Your task to perform on an android device: turn on location history Image 0: 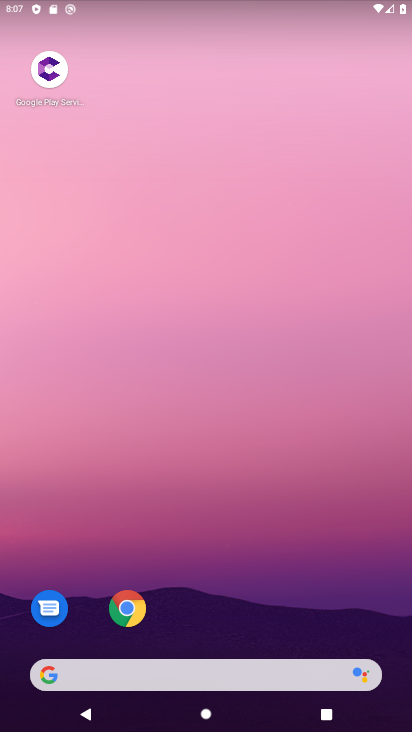
Step 0: drag from (221, 660) to (214, 51)
Your task to perform on an android device: turn on location history Image 1: 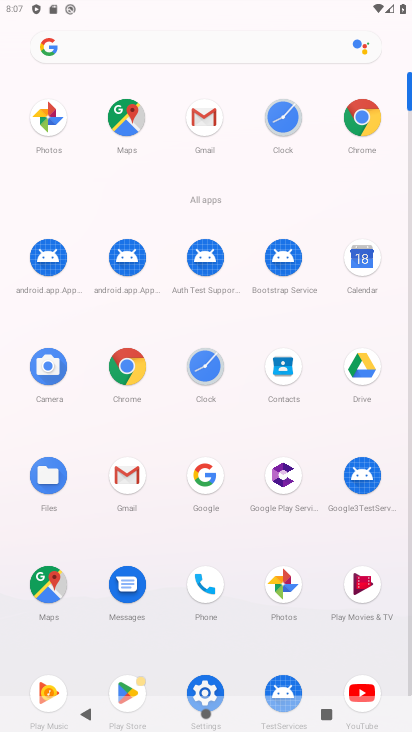
Step 1: click (211, 676)
Your task to perform on an android device: turn on location history Image 2: 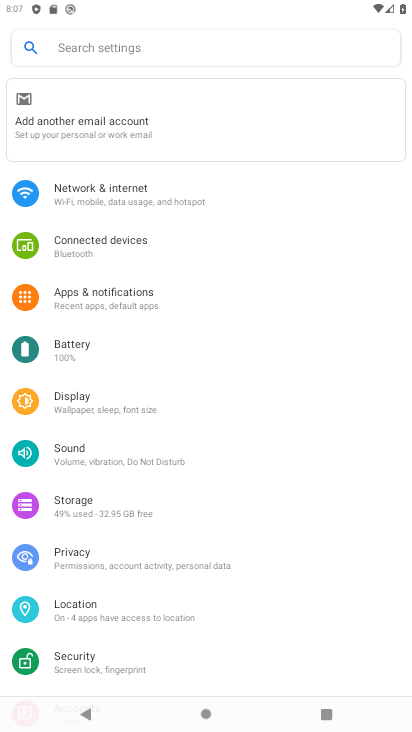
Step 2: click (65, 609)
Your task to perform on an android device: turn on location history Image 3: 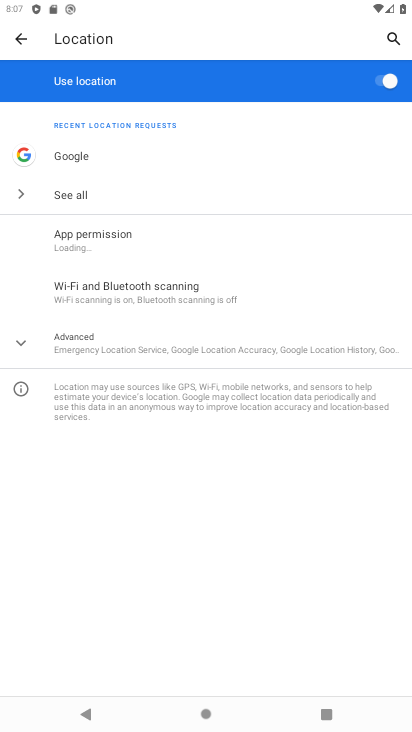
Step 3: click (92, 346)
Your task to perform on an android device: turn on location history Image 4: 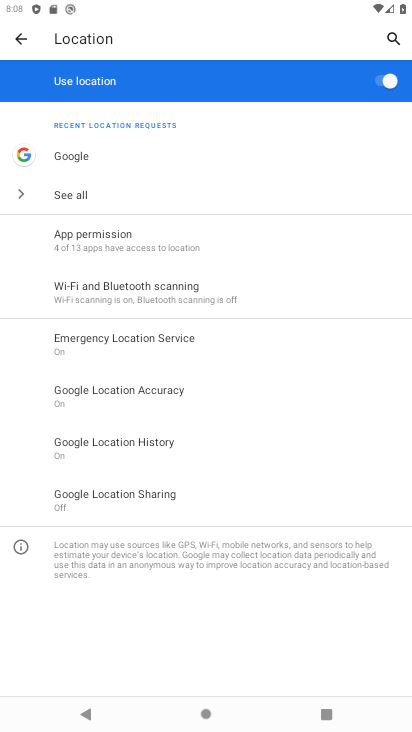
Step 4: click (97, 442)
Your task to perform on an android device: turn on location history Image 5: 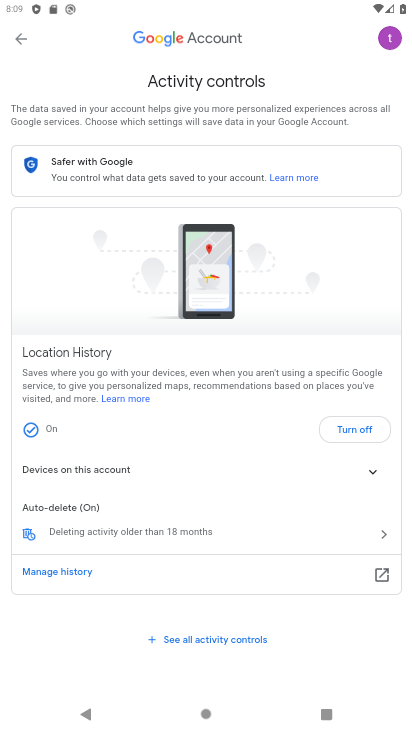
Step 5: task complete